Your task to perform on an android device: What's the weather going to be this weekend? Image 0: 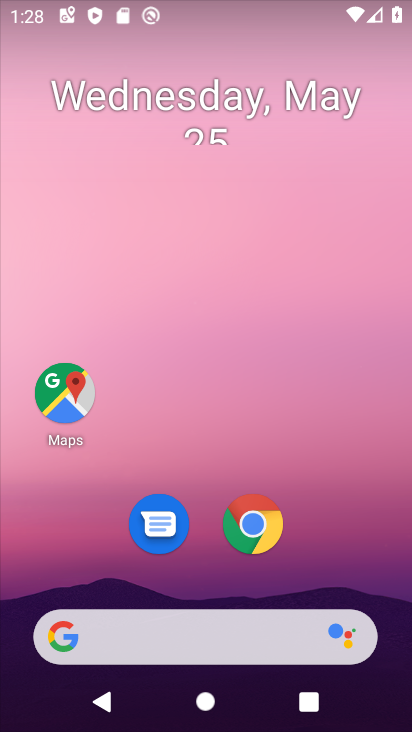
Step 0: click (246, 630)
Your task to perform on an android device: What's the weather going to be this weekend? Image 1: 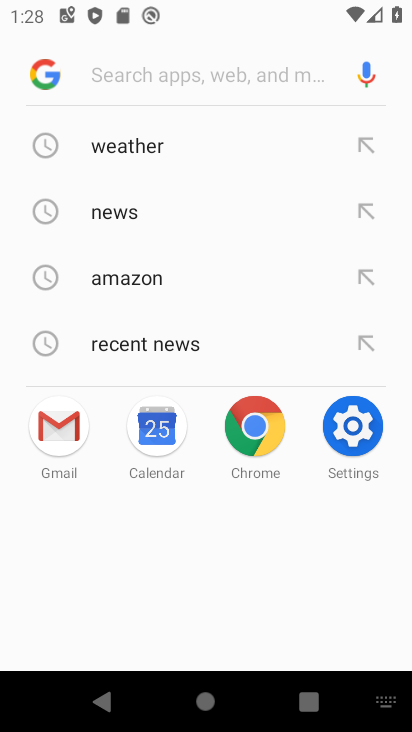
Step 1: click (98, 148)
Your task to perform on an android device: What's the weather going to be this weekend? Image 2: 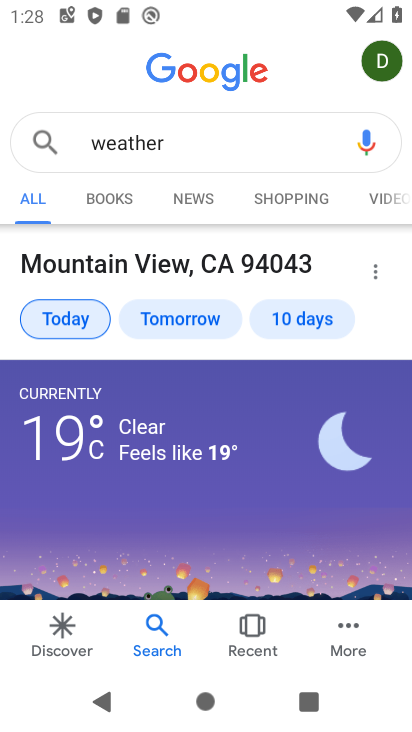
Step 2: click (77, 318)
Your task to perform on an android device: What's the weather going to be this weekend? Image 3: 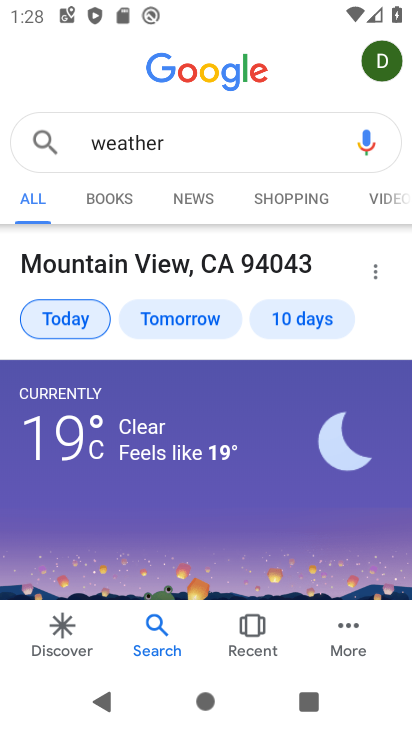
Step 3: click (77, 318)
Your task to perform on an android device: What's the weather going to be this weekend? Image 4: 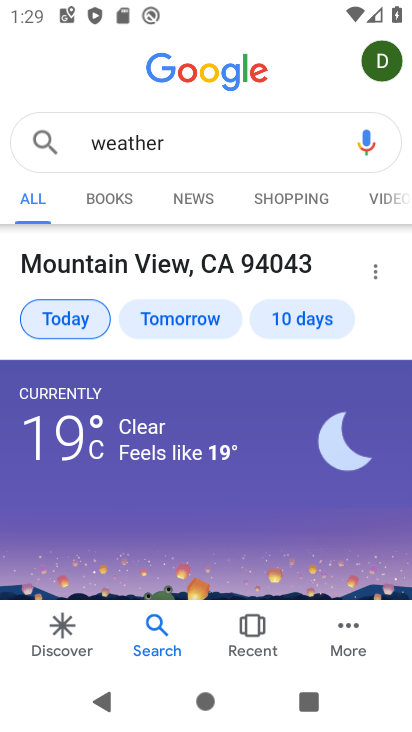
Step 4: click (77, 316)
Your task to perform on an android device: What's the weather going to be this weekend? Image 5: 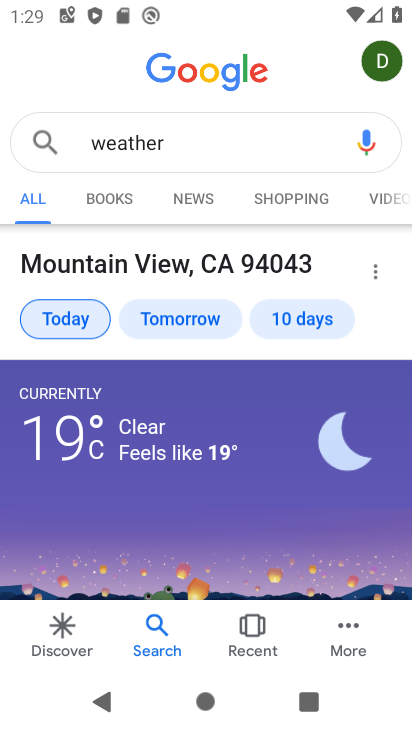
Step 5: click (82, 309)
Your task to perform on an android device: What's the weather going to be this weekend? Image 6: 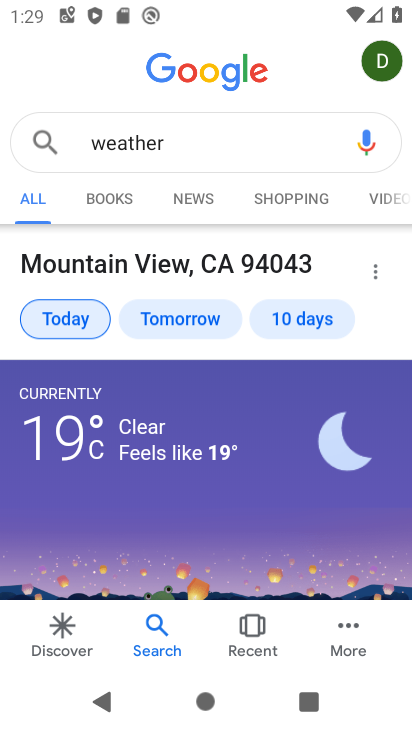
Step 6: click (82, 309)
Your task to perform on an android device: What's the weather going to be this weekend? Image 7: 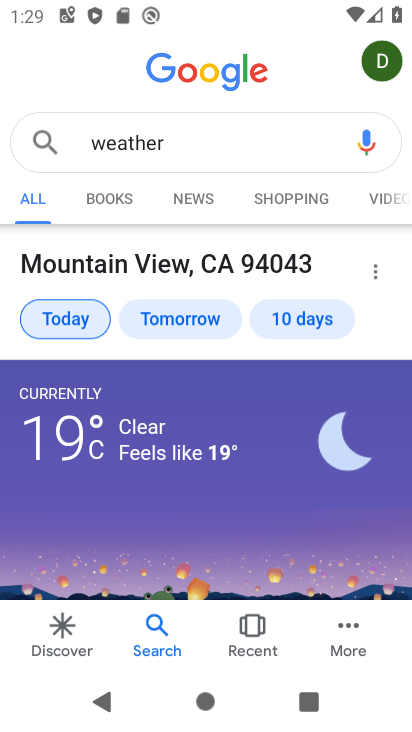
Step 7: click (45, 318)
Your task to perform on an android device: What's the weather going to be this weekend? Image 8: 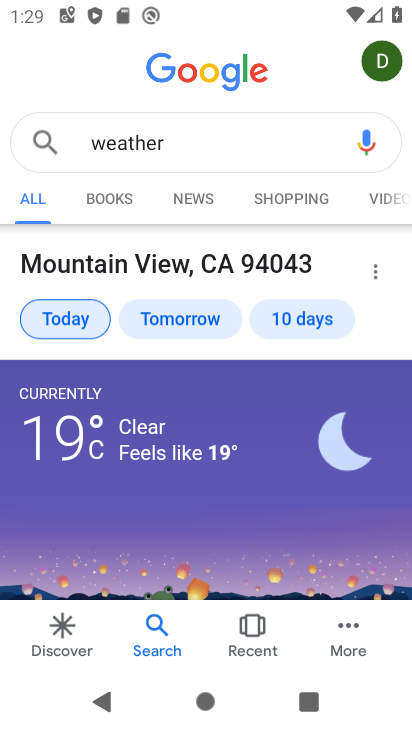
Step 8: click (45, 318)
Your task to perform on an android device: What's the weather going to be this weekend? Image 9: 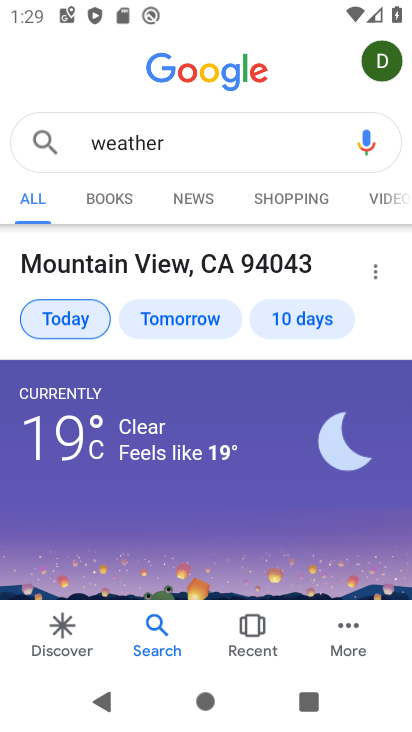
Step 9: click (76, 308)
Your task to perform on an android device: What's the weather going to be this weekend? Image 10: 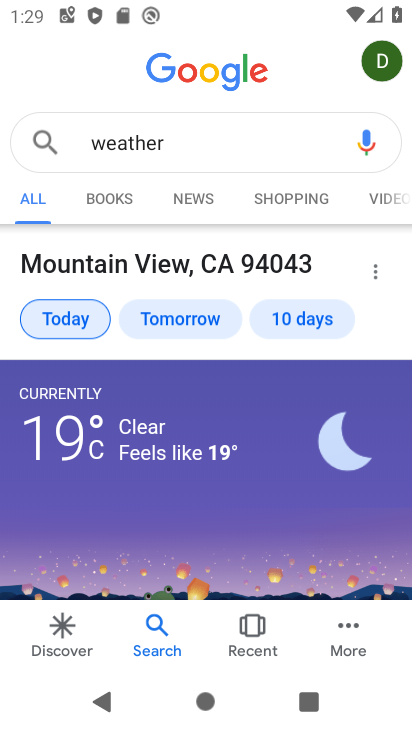
Step 10: press back button
Your task to perform on an android device: What's the weather going to be this weekend? Image 11: 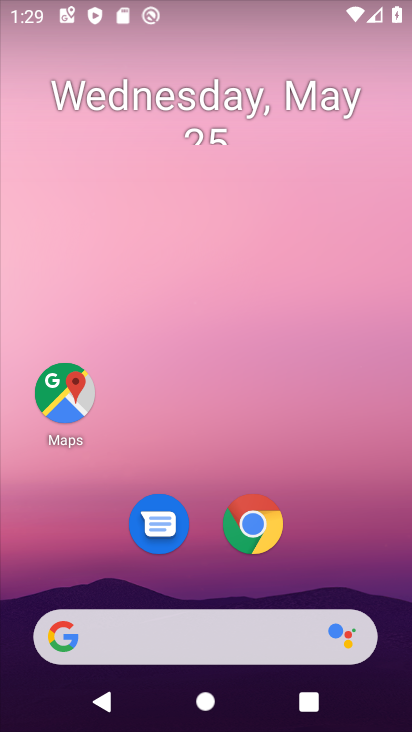
Step 11: click (121, 643)
Your task to perform on an android device: What's the weather going to be this weekend? Image 12: 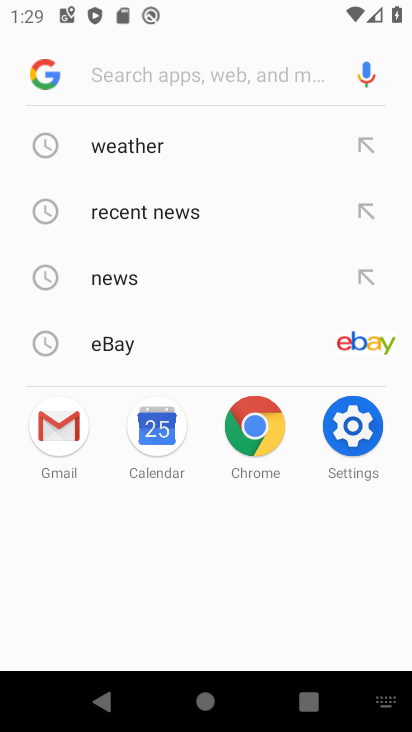
Step 12: click (119, 144)
Your task to perform on an android device: What's the weather going to be this weekend? Image 13: 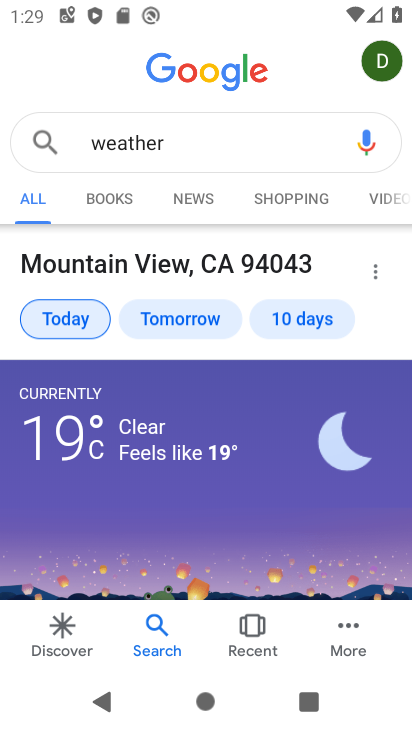
Step 13: click (48, 313)
Your task to perform on an android device: What's the weather going to be this weekend? Image 14: 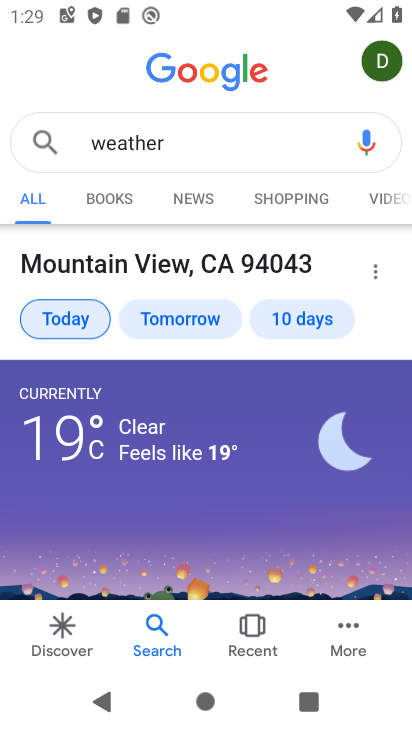
Step 14: click (80, 313)
Your task to perform on an android device: What's the weather going to be this weekend? Image 15: 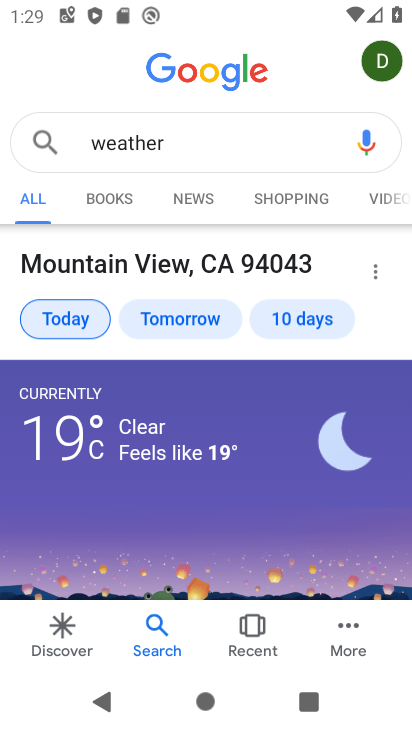
Step 15: click (80, 311)
Your task to perform on an android device: What's the weather going to be this weekend? Image 16: 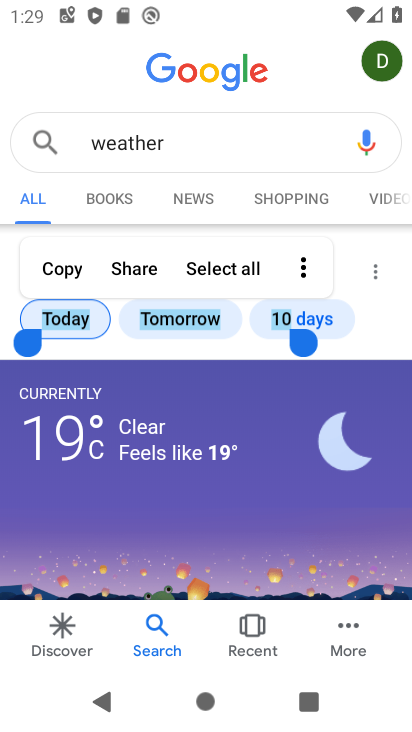
Step 16: click (219, 482)
Your task to perform on an android device: What's the weather going to be this weekend? Image 17: 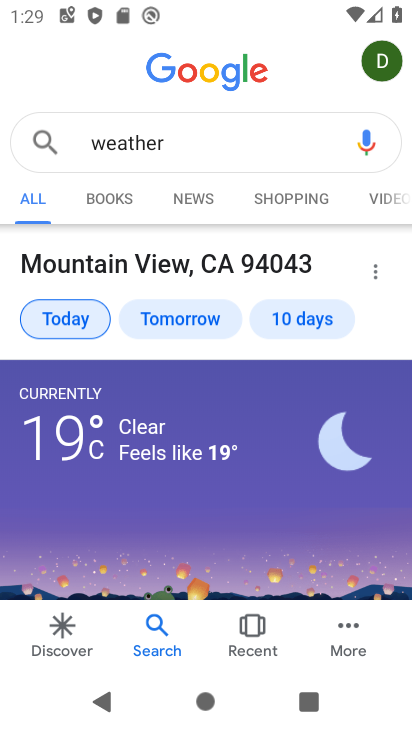
Step 17: drag from (219, 481) to (255, 167)
Your task to perform on an android device: What's the weather going to be this weekend? Image 18: 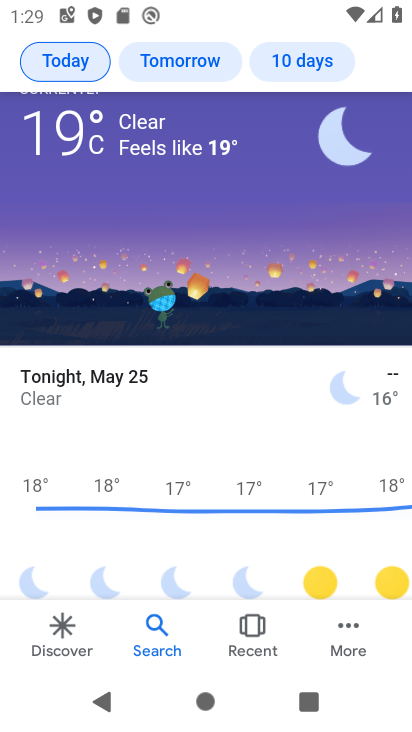
Step 18: drag from (257, 198) to (235, 545)
Your task to perform on an android device: What's the weather going to be this weekend? Image 19: 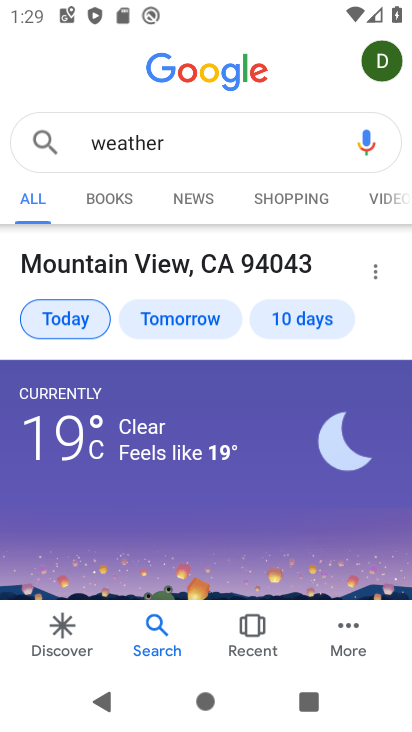
Step 19: click (72, 315)
Your task to perform on an android device: What's the weather going to be this weekend? Image 20: 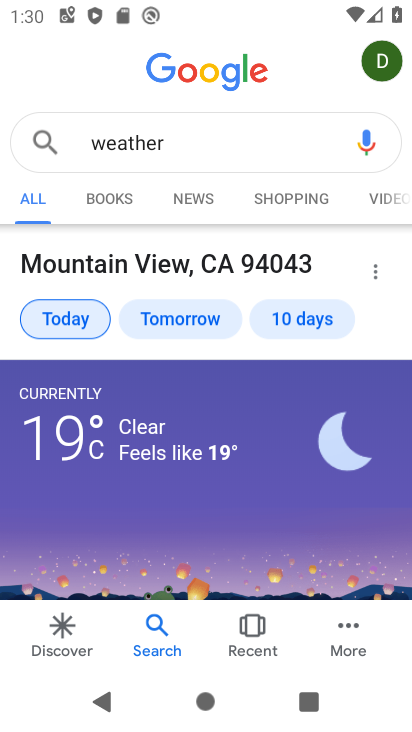
Step 20: press home button
Your task to perform on an android device: What's the weather going to be this weekend? Image 21: 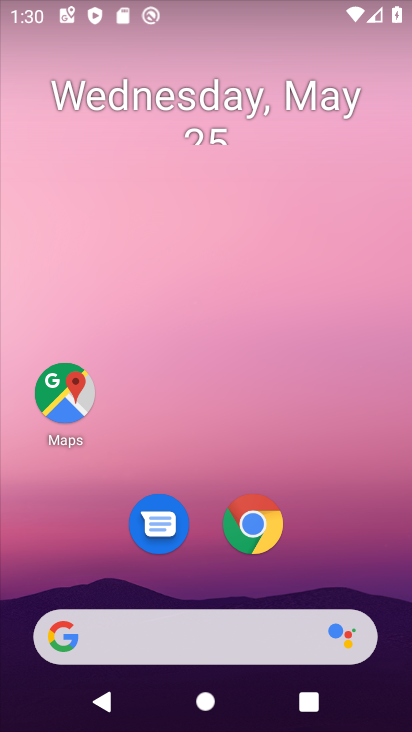
Step 21: click (188, 644)
Your task to perform on an android device: What's the weather going to be this weekend? Image 22: 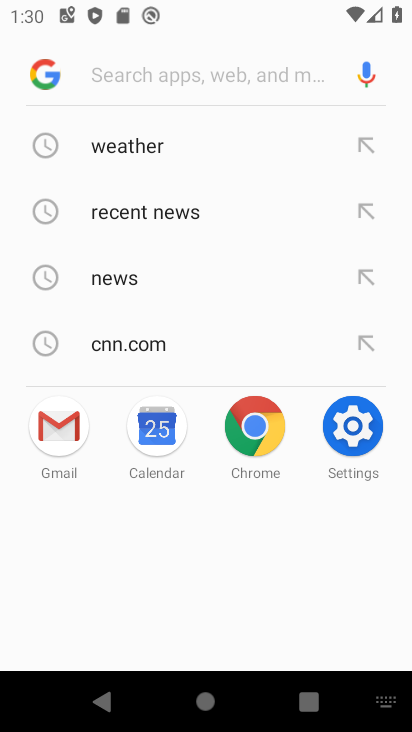
Step 22: click (43, 76)
Your task to perform on an android device: What's the weather going to be this weekend? Image 23: 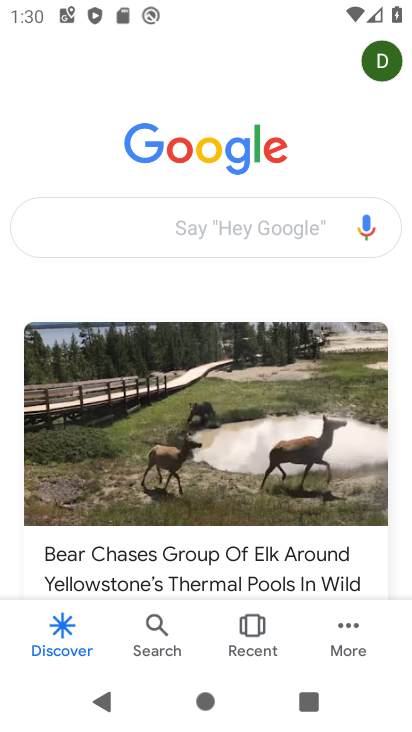
Step 23: drag from (263, 285) to (248, 123)
Your task to perform on an android device: What's the weather going to be this weekend? Image 24: 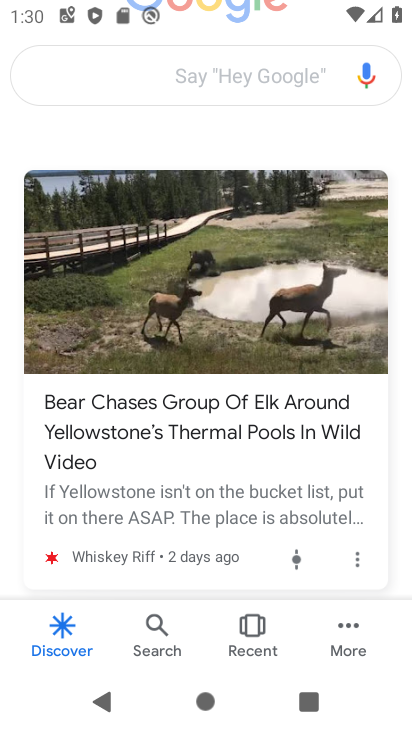
Step 24: drag from (222, 256) to (203, 565)
Your task to perform on an android device: What's the weather going to be this weekend? Image 25: 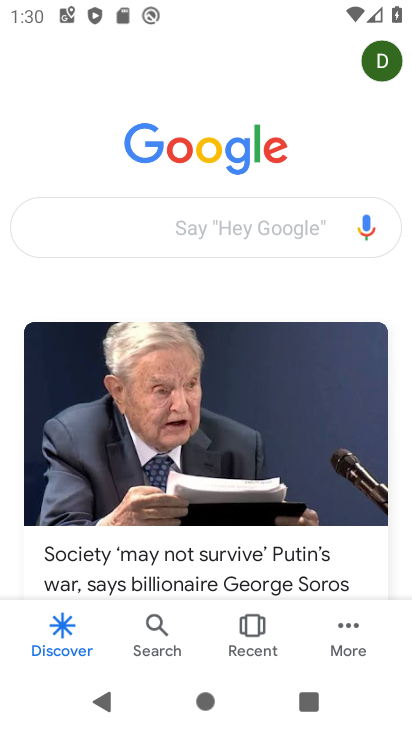
Step 25: press back button
Your task to perform on an android device: What's the weather going to be this weekend? Image 26: 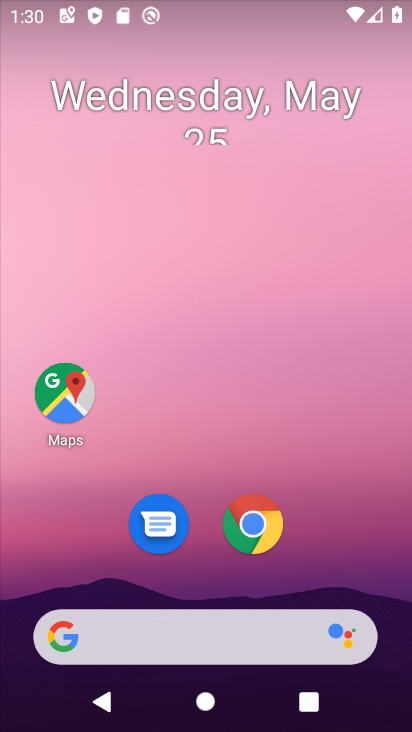
Step 26: click (216, 638)
Your task to perform on an android device: What's the weather going to be this weekend? Image 27: 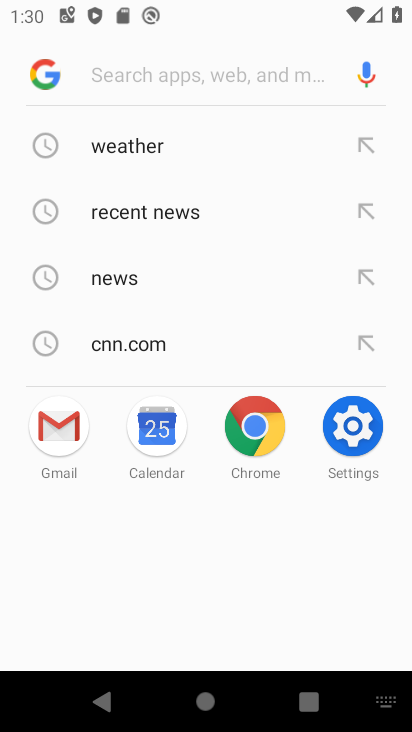
Step 27: click (121, 147)
Your task to perform on an android device: What's the weather going to be this weekend? Image 28: 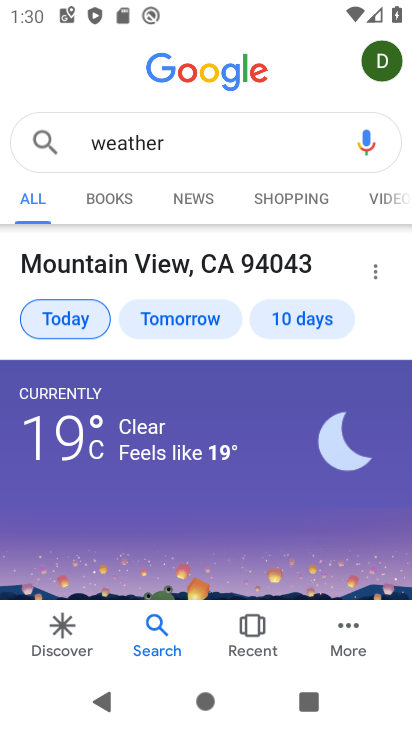
Step 28: click (78, 306)
Your task to perform on an android device: What's the weather going to be this weekend? Image 29: 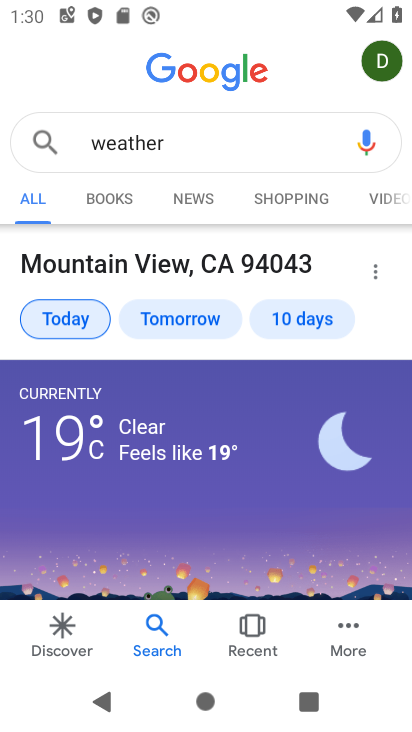
Step 29: click (75, 322)
Your task to perform on an android device: What's the weather going to be this weekend? Image 30: 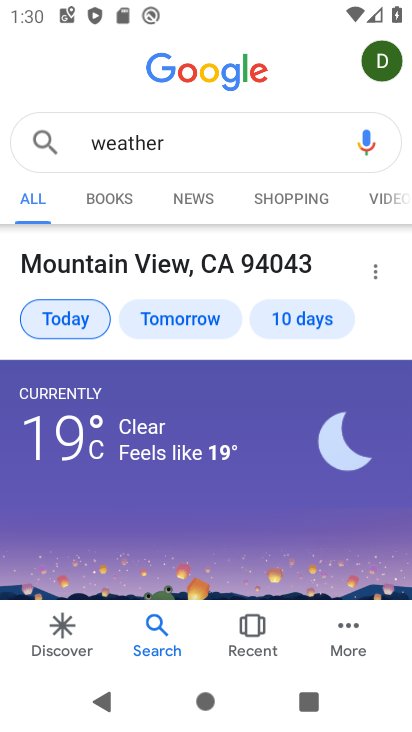
Step 30: click (75, 320)
Your task to perform on an android device: What's the weather going to be this weekend? Image 31: 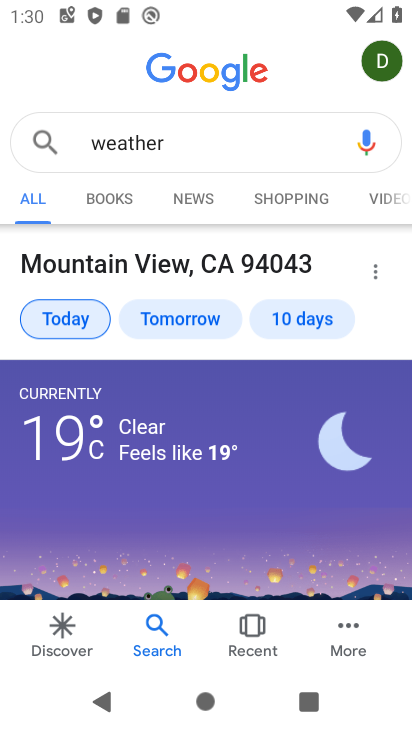
Step 31: click (164, 315)
Your task to perform on an android device: What's the weather going to be this weekend? Image 32: 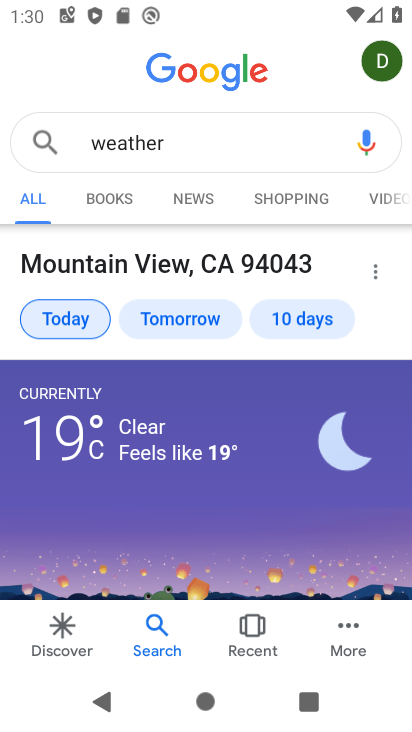
Step 32: drag from (157, 420) to (181, 238)
Your task to perform on an android device: What's the weather going to be this weekend? Image 33: 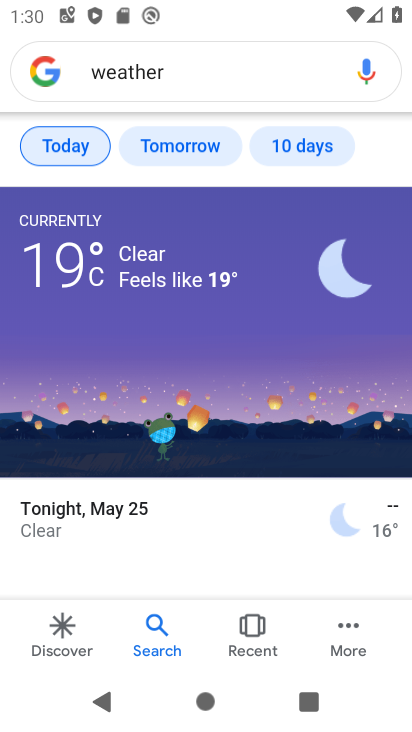
Step 33: click (77, 143)
Your task to perform on an android device: What's the weather going to be this weekend? Image 34: 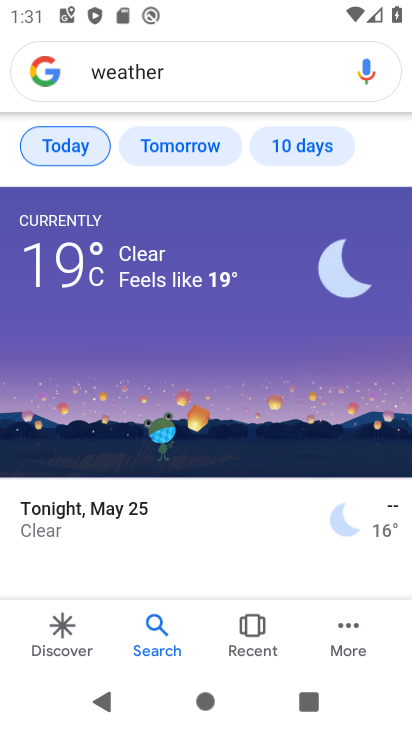
Step 34: click (77, 143)
Your task to perform on an android device: What's the weather going to be this weekend? Image 35: 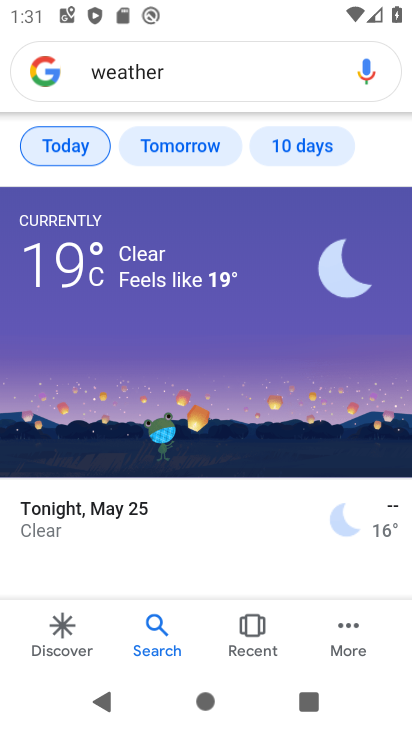
Step 35: click (157, 145)
Your task to perform on an android device: What's the weather going to be this weekend? Image 36: 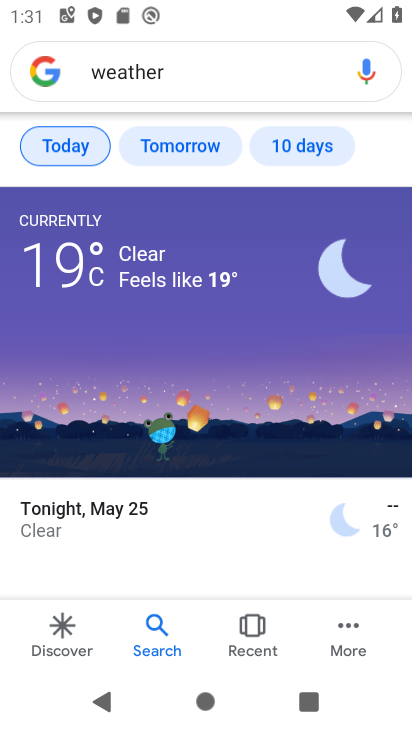
Step 36: click (157, 143)
Your task to perform on an android device: What's the weather going to be this weekend? Image 37: 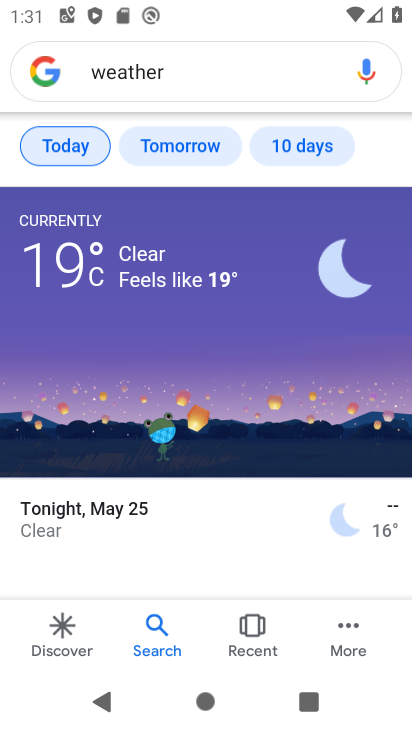
Step 37: click (290, 145)
Your task to perform on an android device: What's the weather going to be this weekend? Image 38: 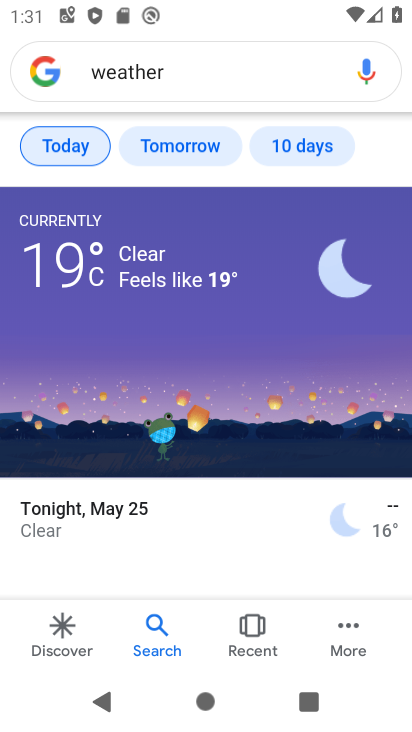
Step 38: task complete